Your task to perform on an android device: install app "Fetch Rewards" Image 0: 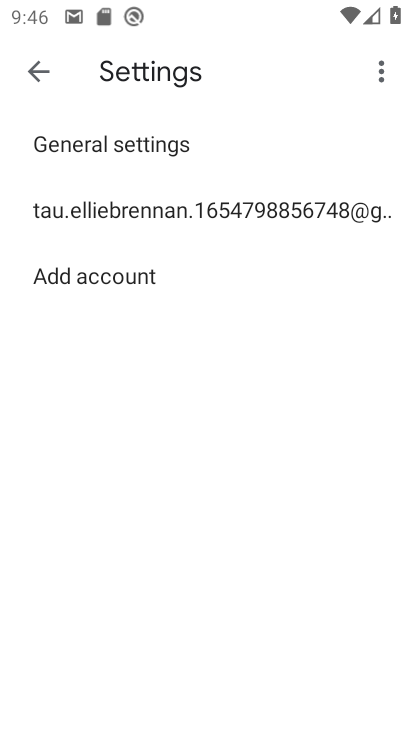
Step 0: press home button
Your task to perform on an android device: install app "Fetch Rewards" Image 1: 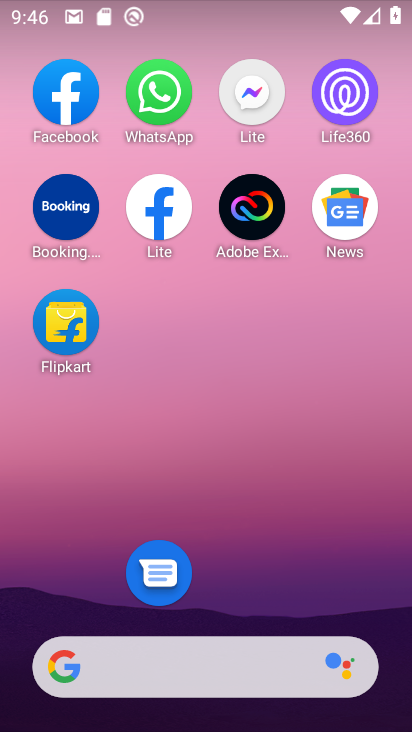
Step 1: drag from (230, 573) to (235, 20)
Your task to perform on an android device: install app "Fetch Rewards" Image 2: 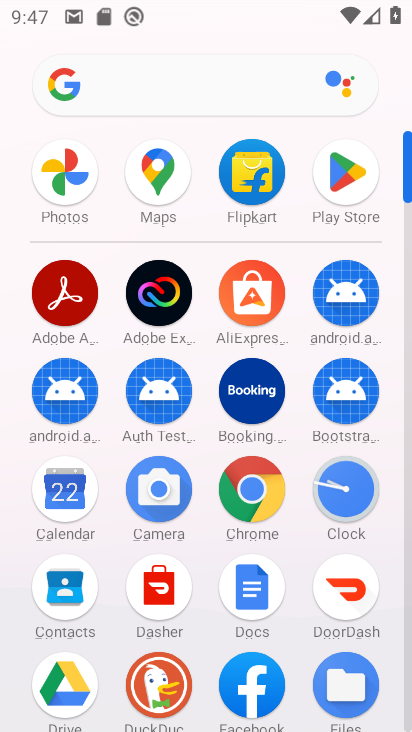
Step 2: click (347, 173)
Your task to perform on an android device: install app "Fetch Rewards" Image 3: 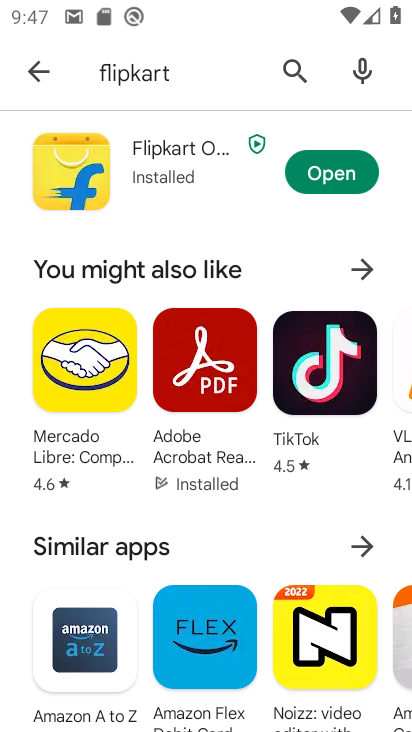
Step 3: click (147, 69)
Your task to perform on an android device: install app "Fetch Rewards" Image 4: 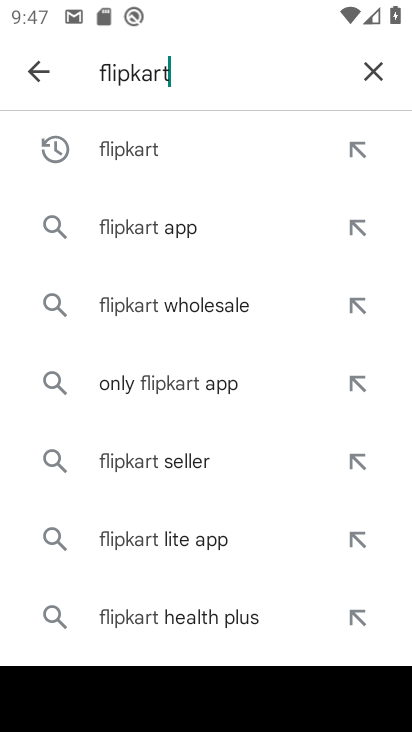
Step 4: click (374, 67)
Your task to perform on an android device: install app "Fetch Rewards" Image 5: 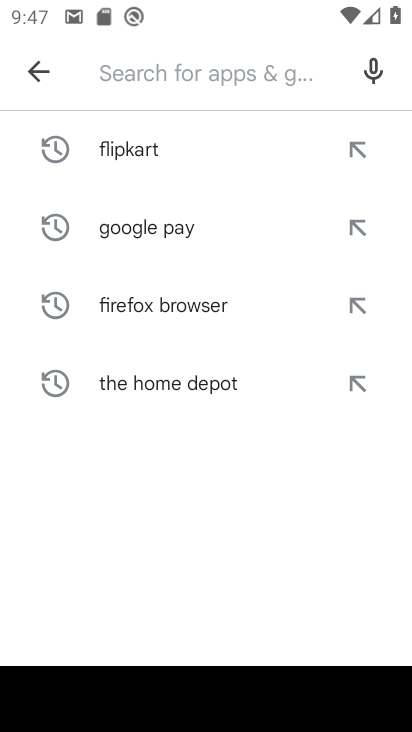
Step 5: type "fetch rewards"
Your task to perform on an android device: install app "Fetch Rewards" Image 6: 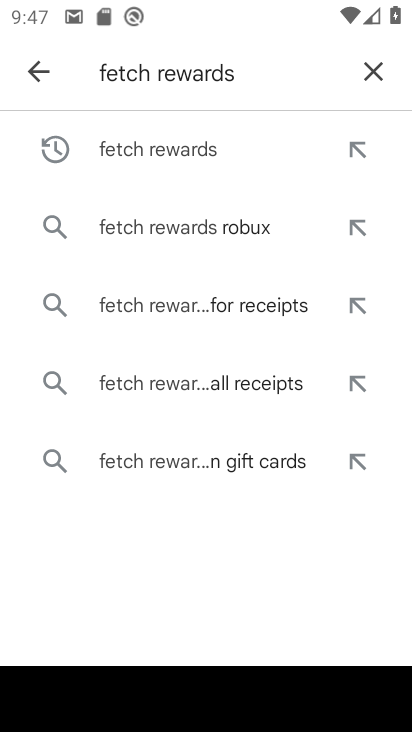
Step 6: click (198, 154)
Your task to perform on an android device: install app "Fetch Rewards" Image 7: 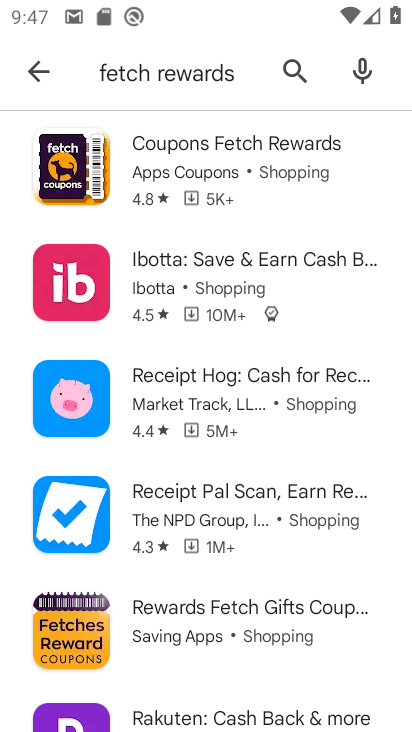
Step 7: task complete